Your task to perform on an android device: change your default location settings in chrome Image 0: 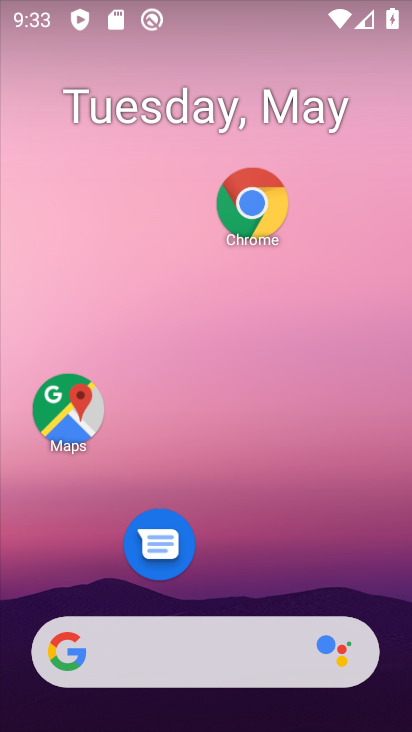
Step 0: click (264, 201)
Your task to perform on an android device: change your default location settings in chrome Image 1: 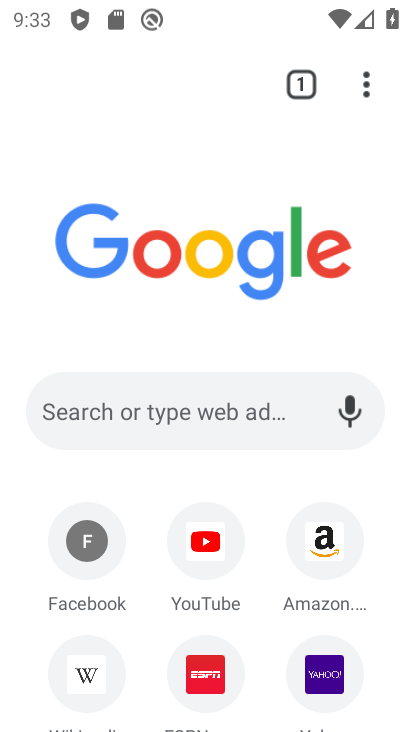
Step 1: click (356, 105)
Your task to perform on an android device: change your default location settings in chrome Image 2: 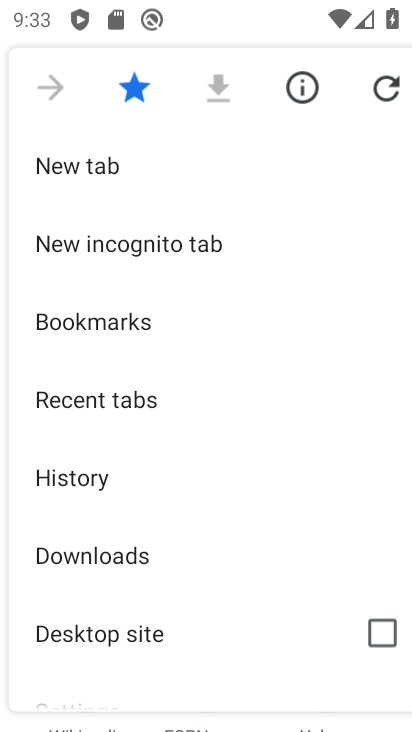
Step 2: drag from (148, 597) to (145, 232)
Your task to perform on an android device: change your default location settings in chrome Image 3: 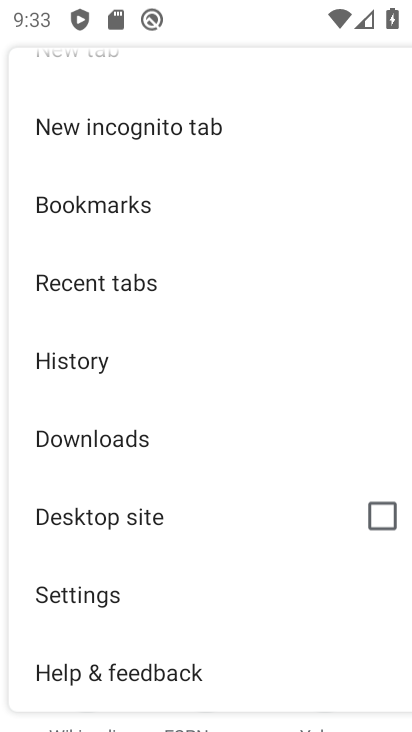
Step 3: click (115, 608)
Your task to perform on an android device: change your default location settings in chrome Image 4: 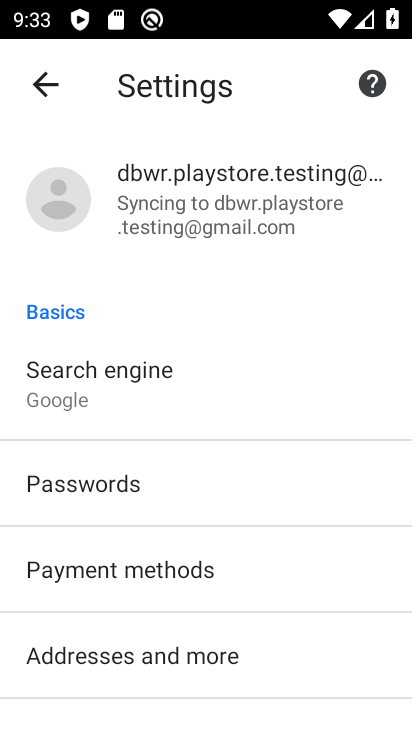
Step 4: drag from (198, 632) to (190, 283)
Your task to perform on an android device: change your default location settings in chrome Image 5: 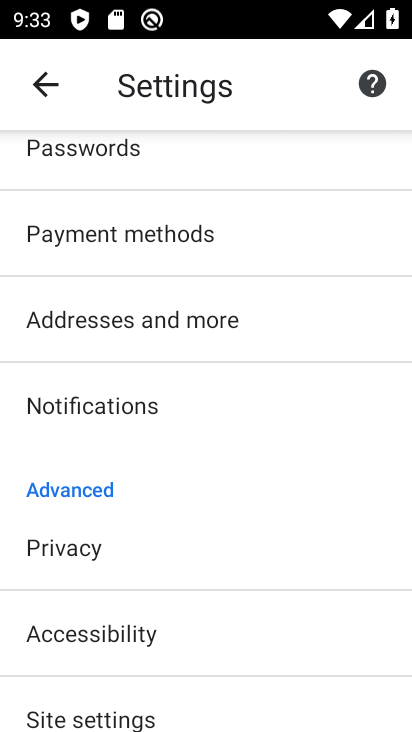
Step 5: drag from (205, 571) to (217, 292)
Your task to perform on an android device: change your default location settings in chrome Image 6: 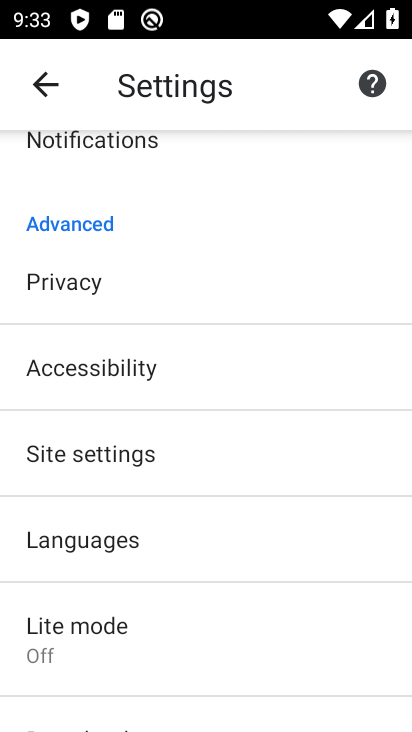
Step 6: click (179, 454)
Your task to perform on an android device: change your default location settings in chrome Image 7: 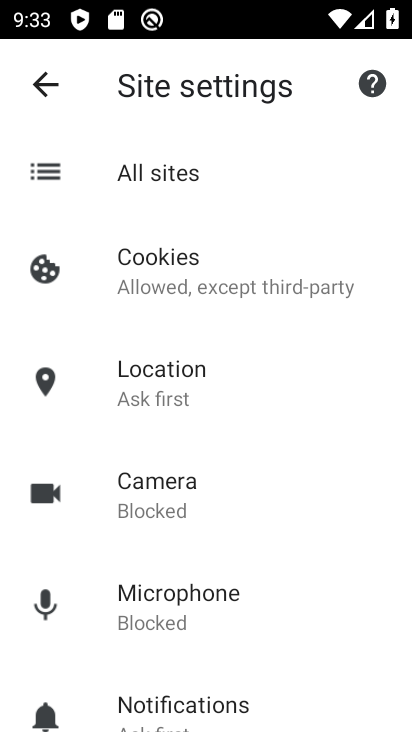
Step 7: click (217, 404)
Your task to perform on an android device: change your default location settings in chrome Image 8: 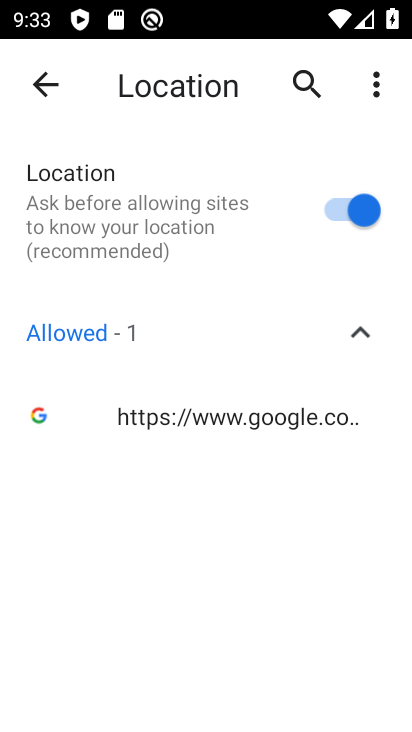
Step 8: task complete